Your task to perform on an android device: open a bookmark in the chrome app Image 0: 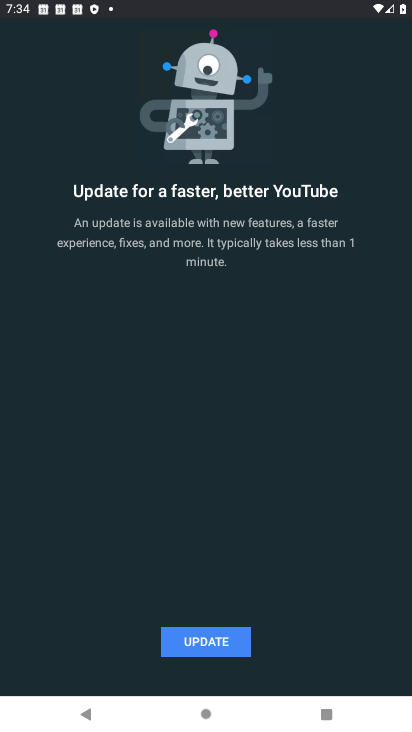
Step 0: press home button
Your task to perform on an android device: open a bookmark in the chrome app Image 1: 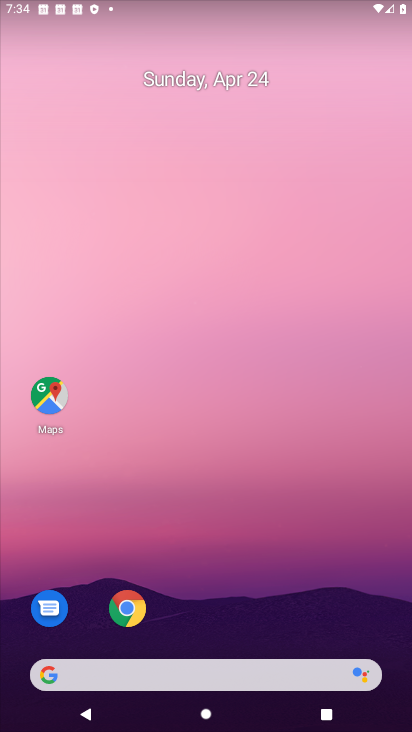
Step 1: click (132, 607)
Your task to perform on an android device: open a bookmark in the chrome app Image 2: 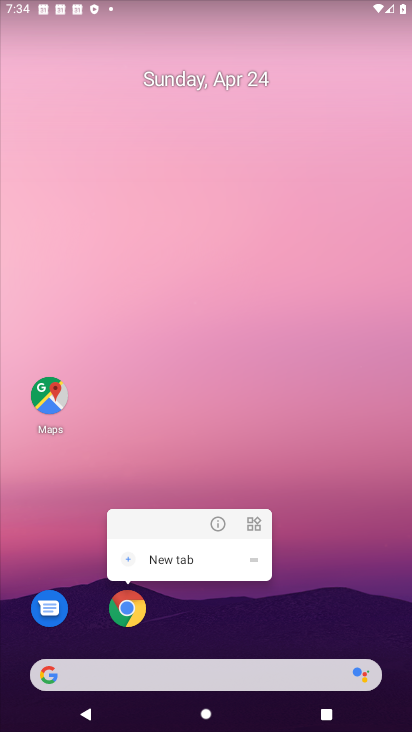
Step 2: drag from (322, 659) to (390, 34)
Your task to perform on an android device: open a bookmark in the chrome app Image 3: 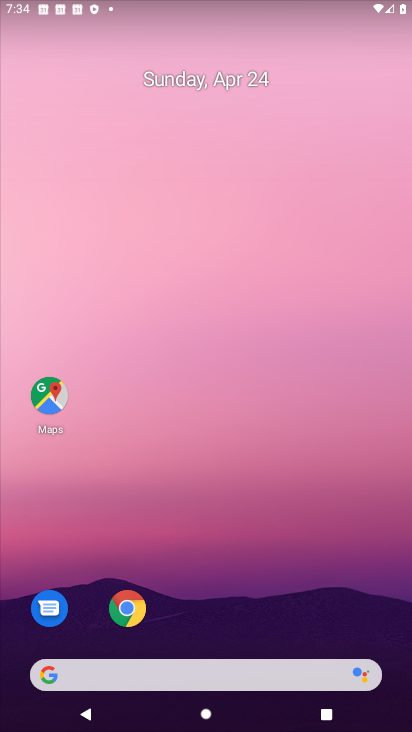
Step 3: drag from (287, 476) to (309, 103)
Your task to perform on an android device: open a bookmark in the chrome app Image 4: 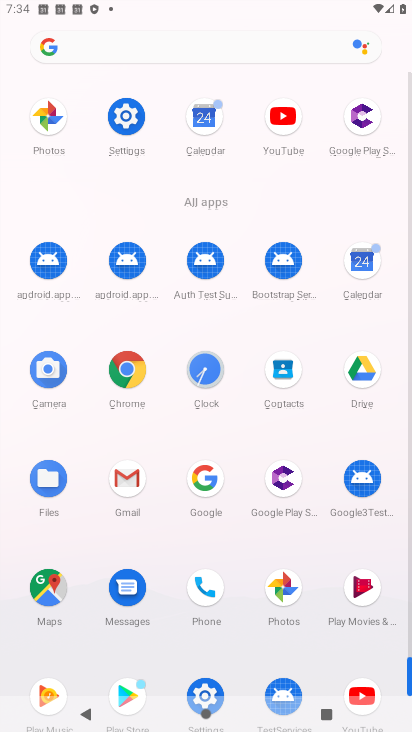
Step 4: click (136, 365)
Your task to perform on an android device: open a bookmark in the chrome app Image 5: 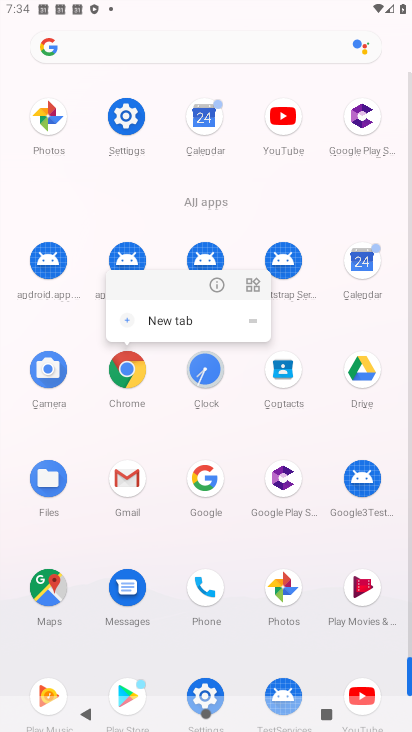
Step 5: click (122, 370)
Your task to perform on an android device: open a bookmark in the chrome app Image 6: 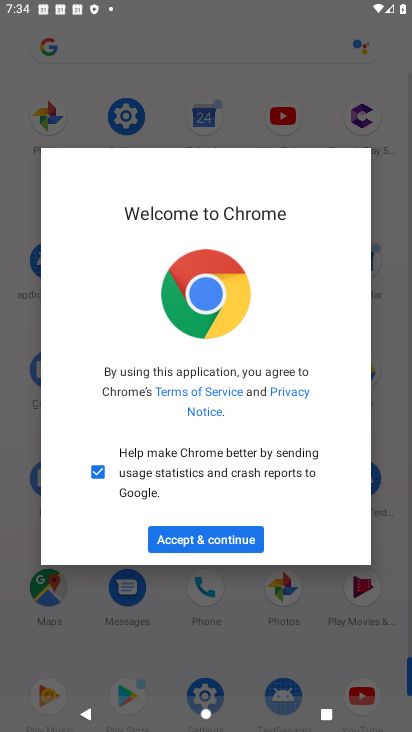
Step 6: click (235, 544)
Your task to perform on an android device: open a bookmark in the chrome app Image 7: 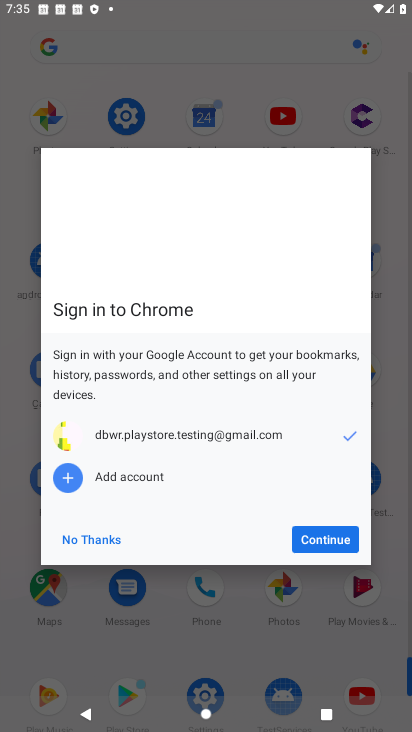
Step 7: click (322, 535)
Your task to perform on an android device: open a bookmark in the chrome app Image 8: 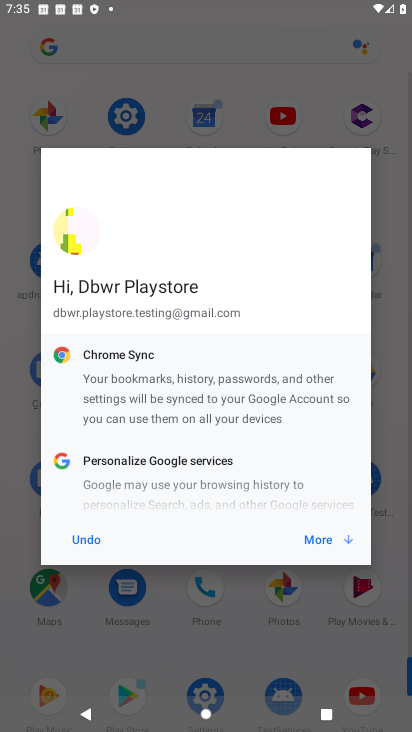
Step 8: click (322, 535)
Your task to perform on an android device: open a bookmark in the chrome app Image 9: 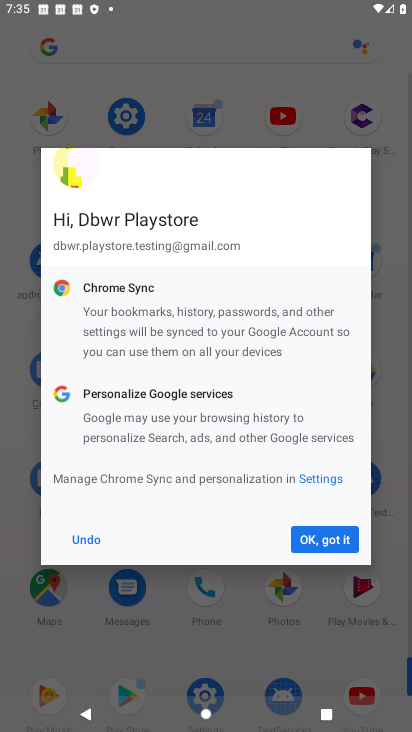
Step 9: click (321, 536)
Your task to perform on an android device: open a bookmark in the chrome app Image 10: 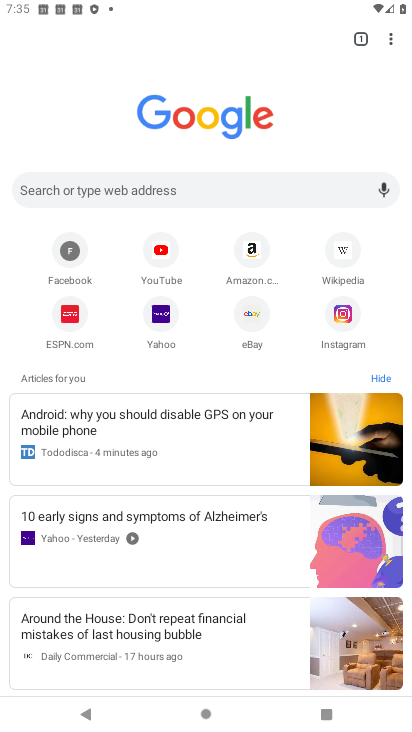
Step 10: drag from (393, 38) to (254, 156)
Your task to perform on an android device: open a bookmark in the chrome app Image 11: 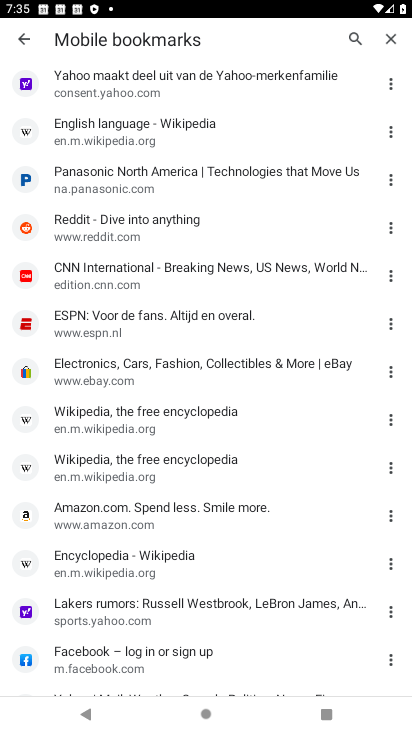
Step 11: click (143, 233)
Your task to perform on an android device: open a bookmark in the chrome app Image 12: 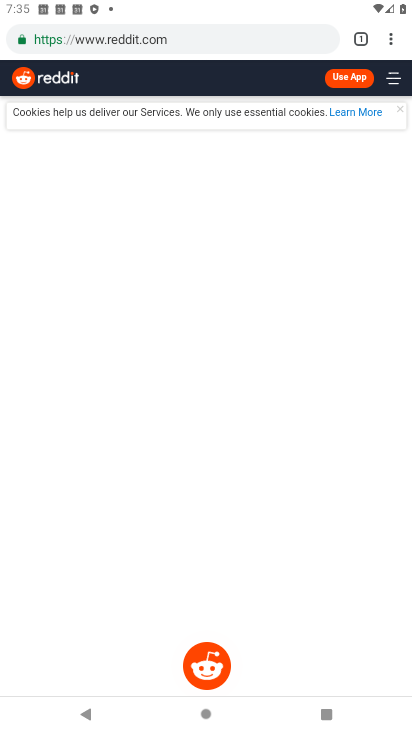
Step 12: task complete